Your task to perform on an android device: Go to sound settings Image 0: 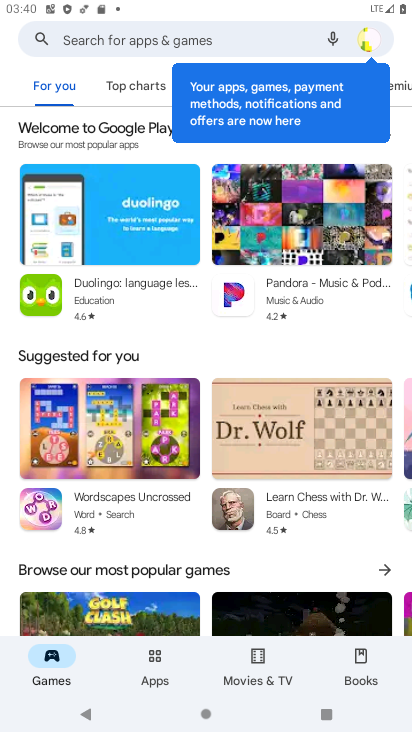
Step 0: press back button
Your task to perform on an android device: Go to sound settings Image 1: 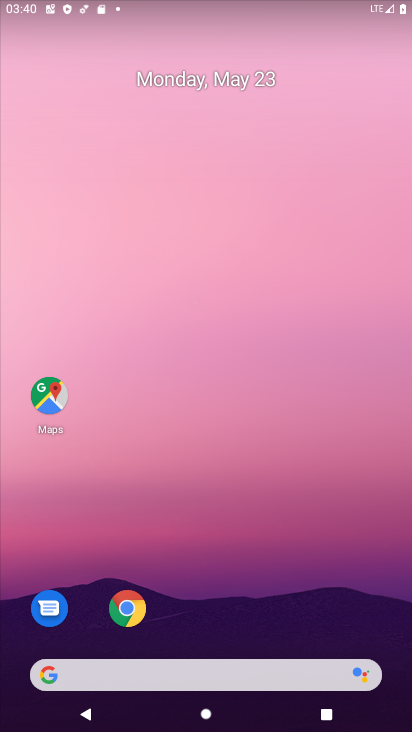
Step 1: drag from (260, 624) to (258, 129)
Your task to perform on an android device: Go to sound settings Image 2: 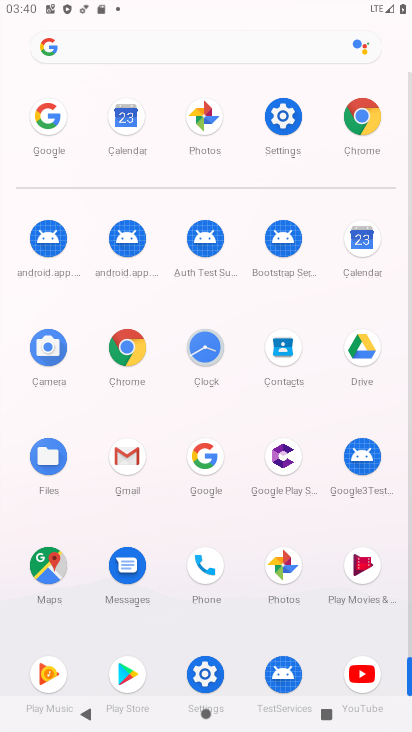
Step 2: click (283, 115)
Your task to perform on an android device: Go to sound settings Image 3: 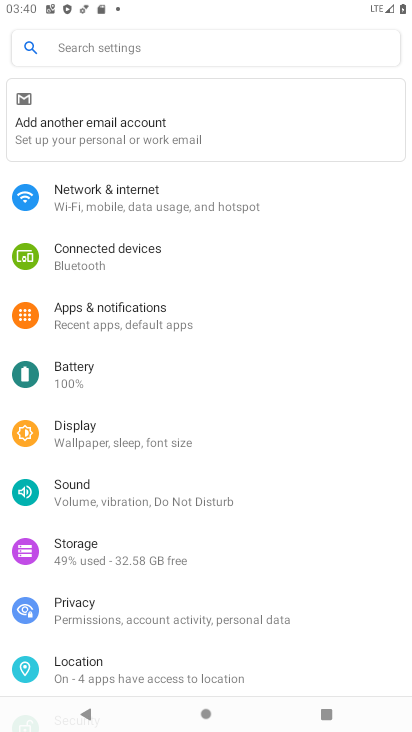
Step 3: click (115, 503)
Your task to perform on an android device: Go to sound settings Image 4: 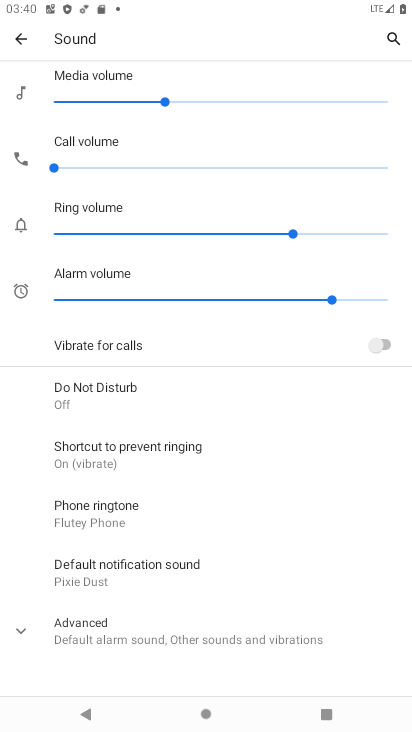
Step 4: task complete